Your task to perform on an android device: Find coffee shops on Maps Image 0: 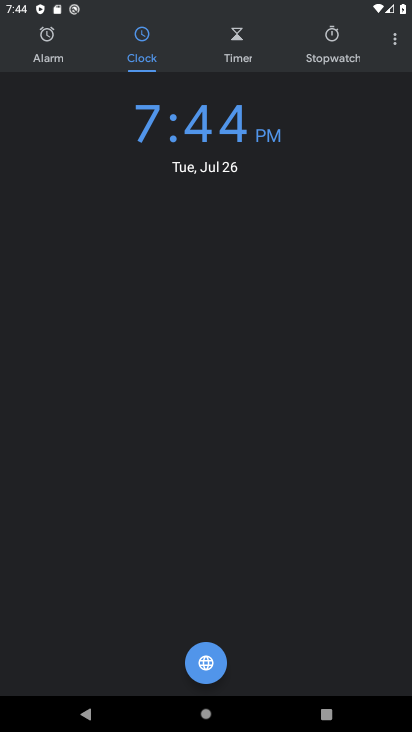
Step 0: press home button
Your task to perform on an android device: Find coffee shops on Maps Image 1: 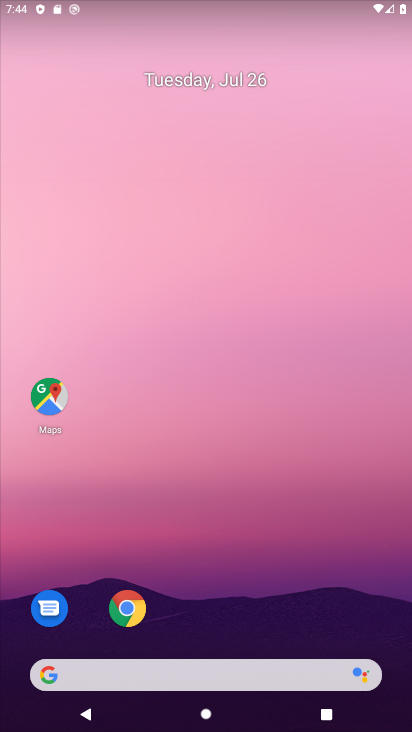
Step 1: click (44, 394)
Your task to perform on an android device: Find coffee shops on Maps Image 2: 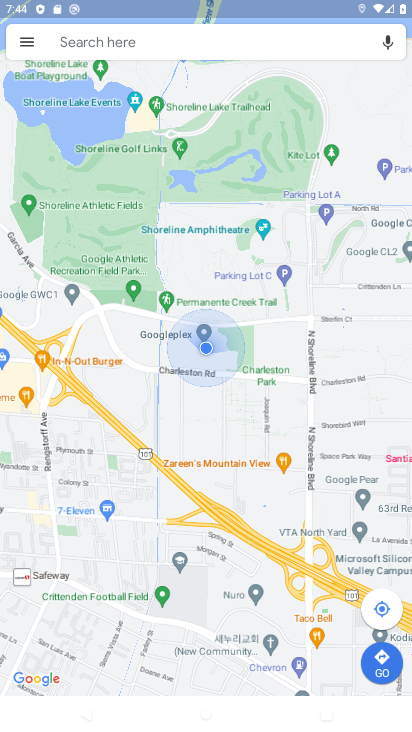
Step 2: click (60, 44)
Your task to perform on an android device: Find coffee shops on Maps Image 3: 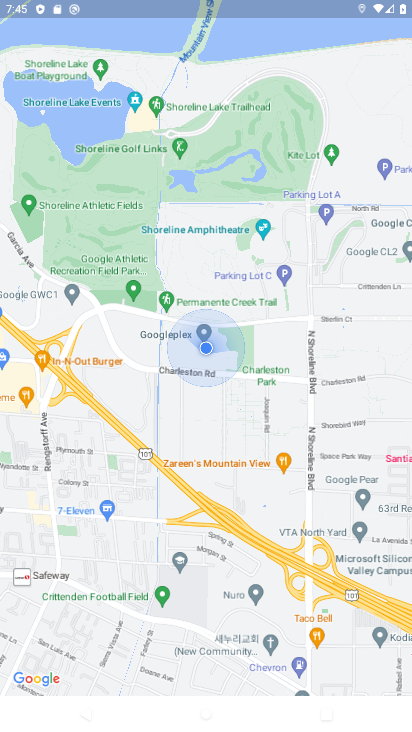
Step 3: click (172, 141)
Your task to perform on an android device: Find coffee shops on Maps Image 4: 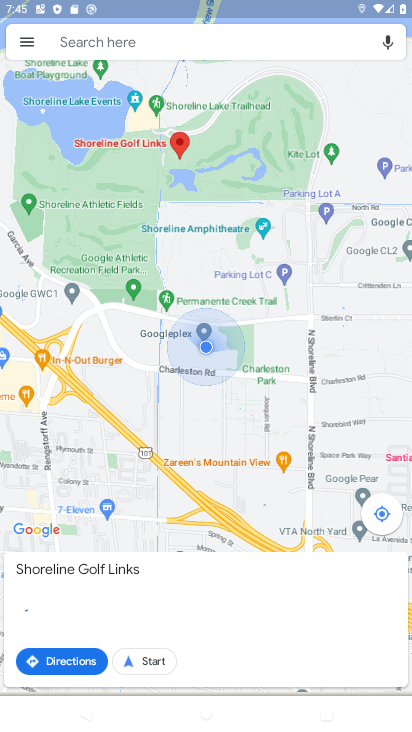
Step 4: click (68, 36)
Your task to perform on an android device: Find coffee shops on Maps Image 5: 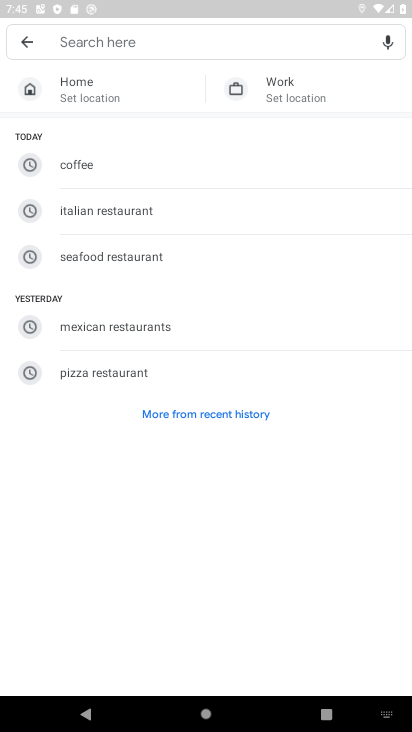
Step 5: type "coffee shops"
Your task to perform on an android device: Find coffee shops on Maps Image 6: 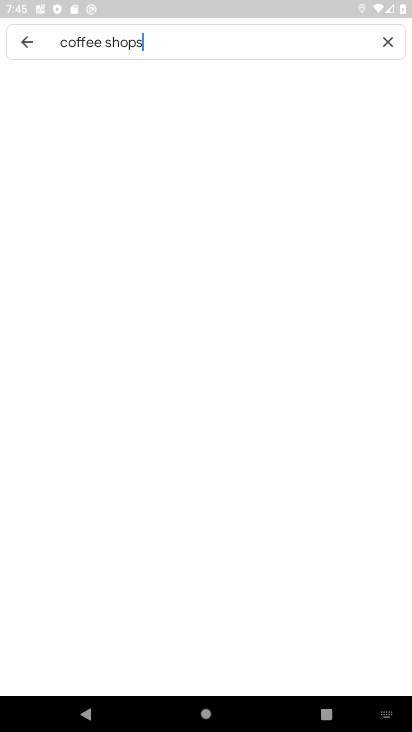
Step 6: type ""
Your task to perform on an android device: Find coffee shops on Maps Image 7: 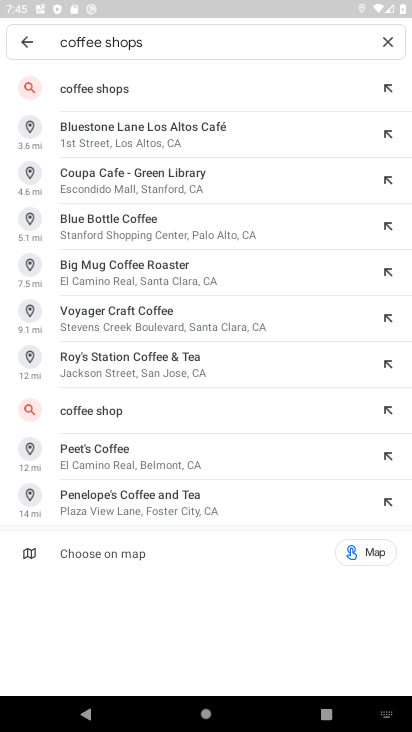
Step 7: click (104, 81)
Your task to perform on an android device: Find coffee shops on Maps Image 8: 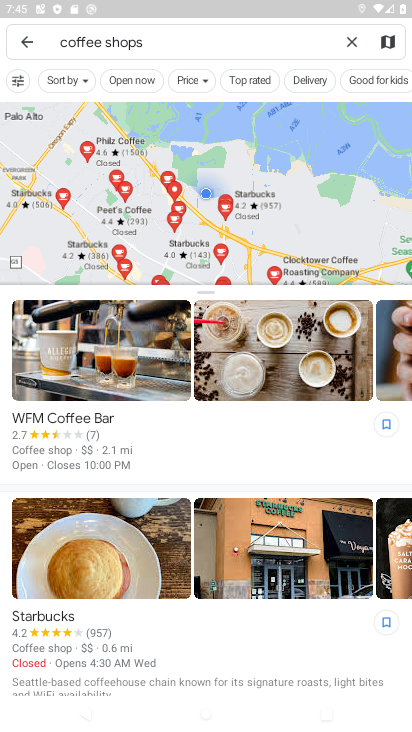
Step 8: task complete